Your task to perform on an android device: turn off airplane mode Image 0: 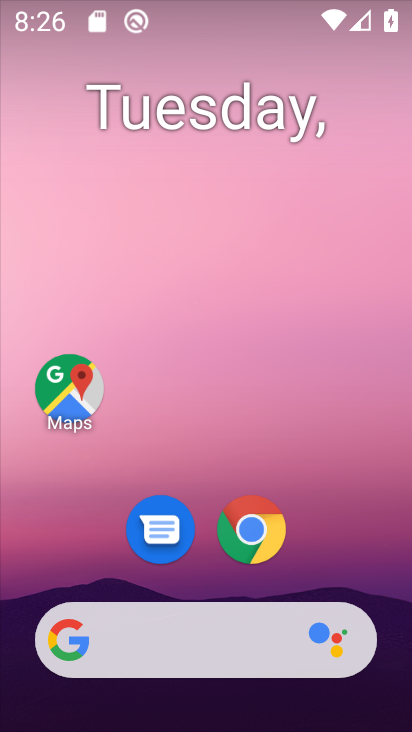
Step 0: drag from (376, 527) to (277, 155)
Your task to perform on an android device: turn off airplane mode Image 1: 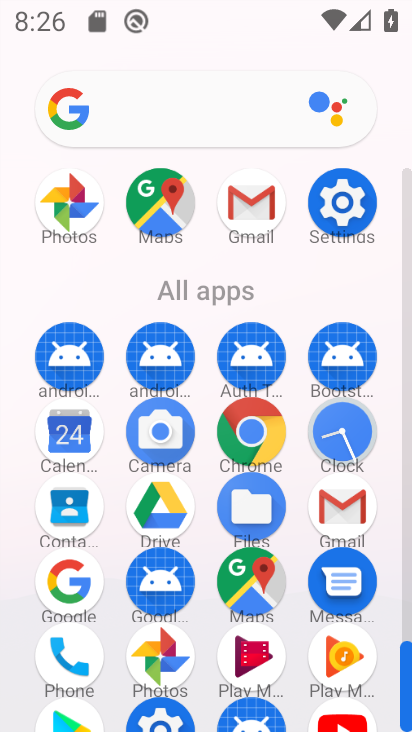
Step 1: click (326, 204)
Your task to perform on an android device: turn off airplane mode Image 2: 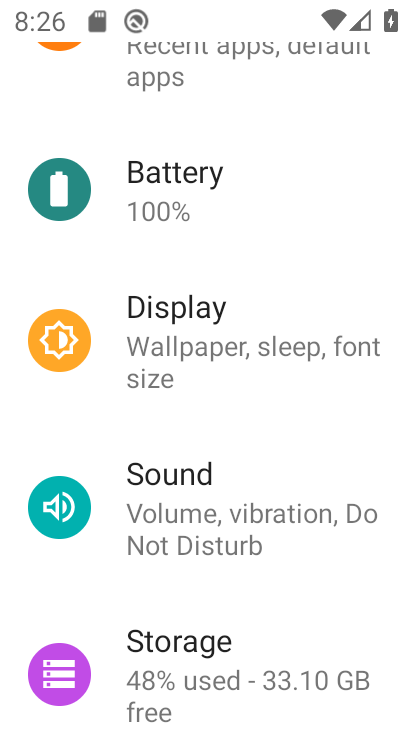
Step 2: drag from (319, 189) to (187, 625)
Your task to perform on an android device: turn off airplane mode Image 3: 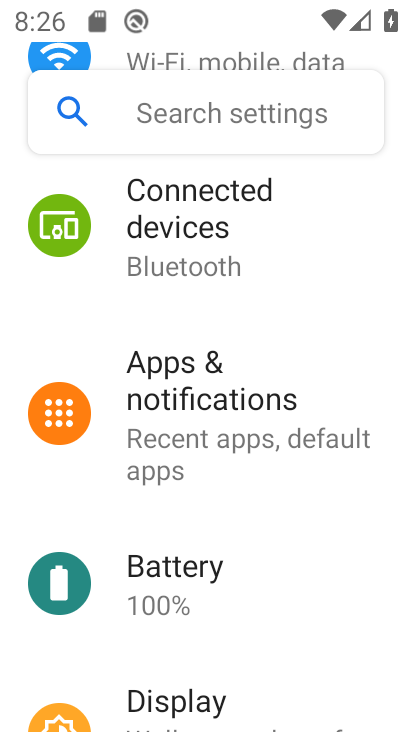
Step 3: drag from (226, 188) to (175, 608)
Your task to perform on an android device: turn off airplane mode Image 4: 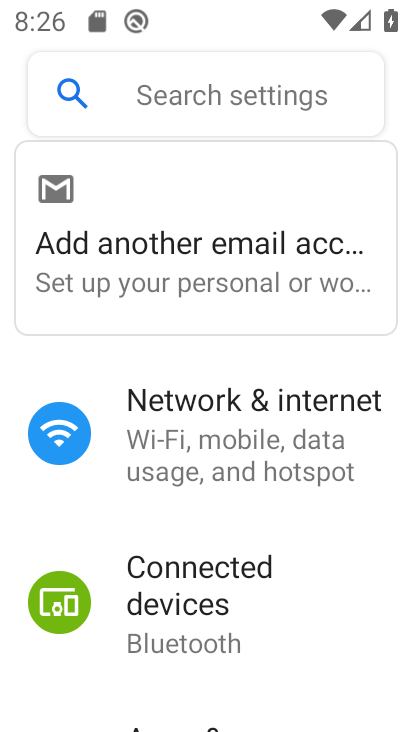
Step 4: click (171, 457)
Your task to perform on an android device: turn off airplane mode Image 5: 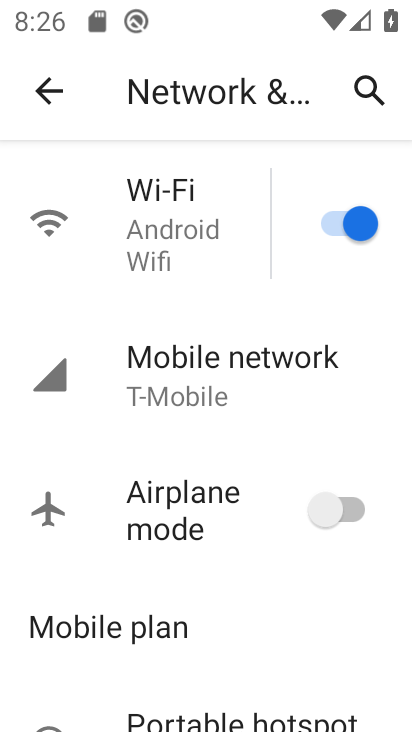
Step 5: task complete